Your task to perform on an android device: open device folders in google photos Image 0: 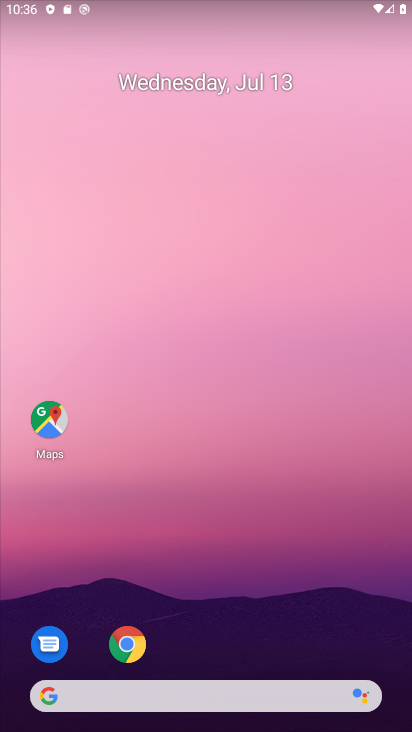
Step 0: drag from (217, 556) to (183, 145)
Your task to perform on an android device: open device folders in google photos Image 1: 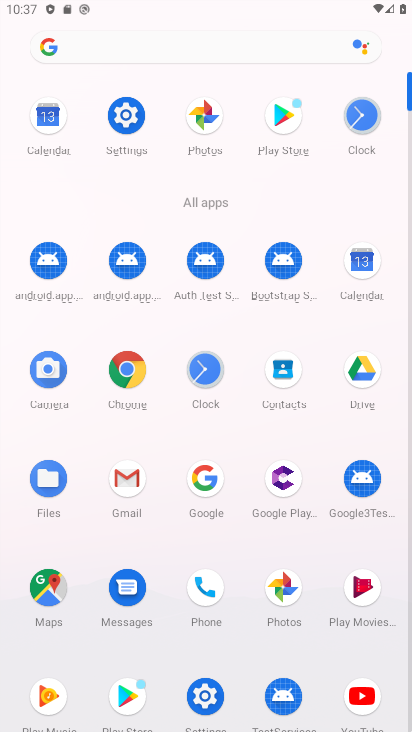
Step 1: click (276, 589)
Your task to perform on an android device: open device folders in google photos Image 2: 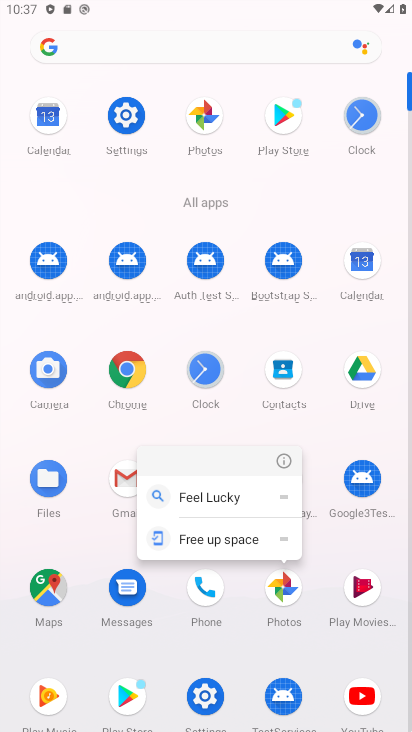
Step 2: click (270, 583)
Your task to perform on an android device: open device folders in google photos Image 3: 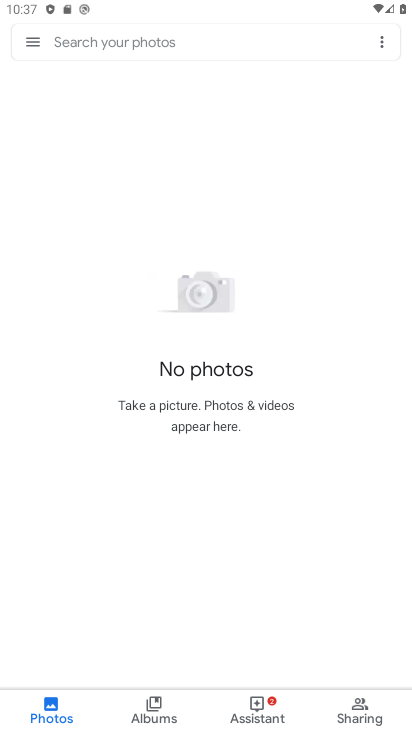
Step 3: click (26, 40)
Your task to perform on an android device: open device folders in google photos Image 4: 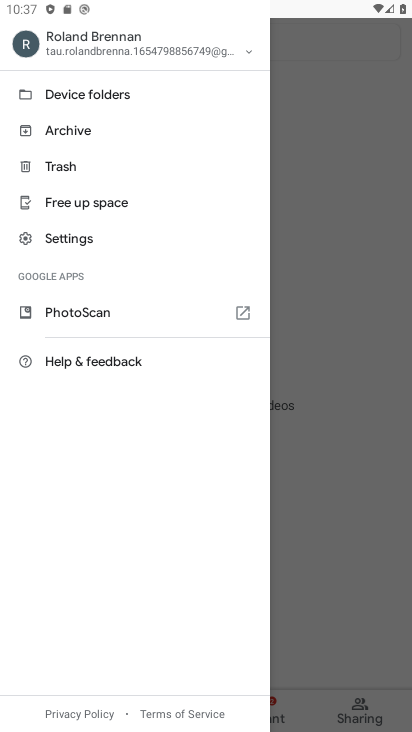
Step 4: click (59, 99)
Your task to perform on an android device: open device folders in google photos Image 5: 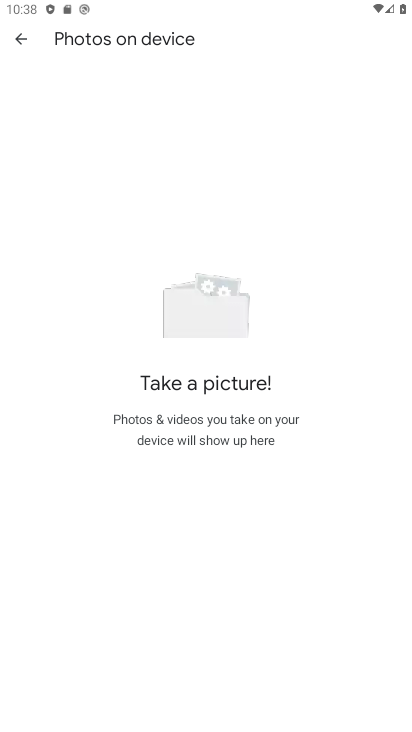
Step 5: task complete